Your task to perform on an android device: Open calendar and show me the third week of next month Image 0: 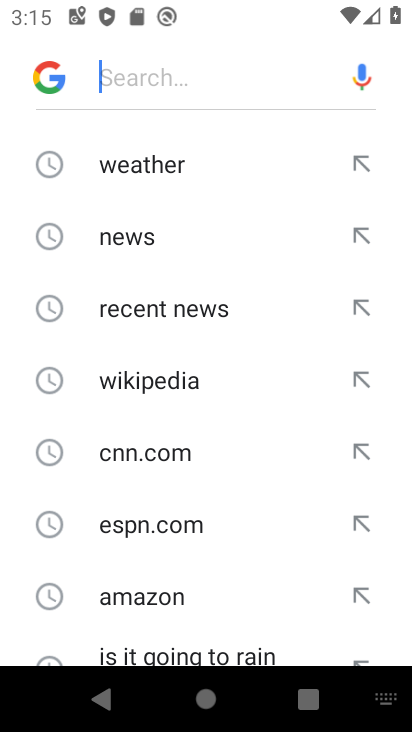
Step 0: press home button
Your task to perform on an android device: Open calendar and show me the third week of next month Image 1: 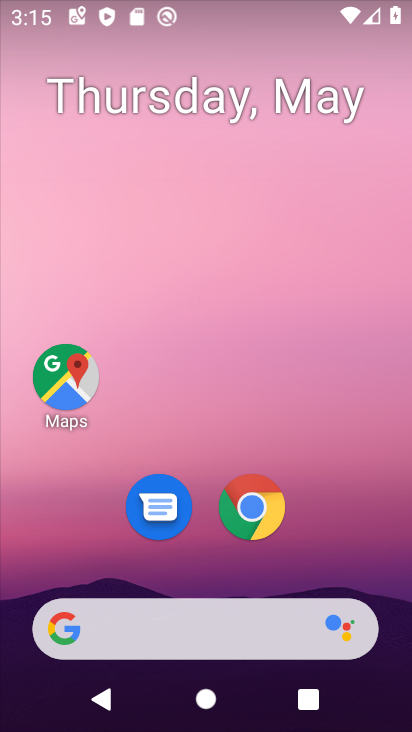
Step 1: drag from (312, 536) to (406, 82)
Your task to perform on an android device: Open calendar and show me the third week of next month Image 2: 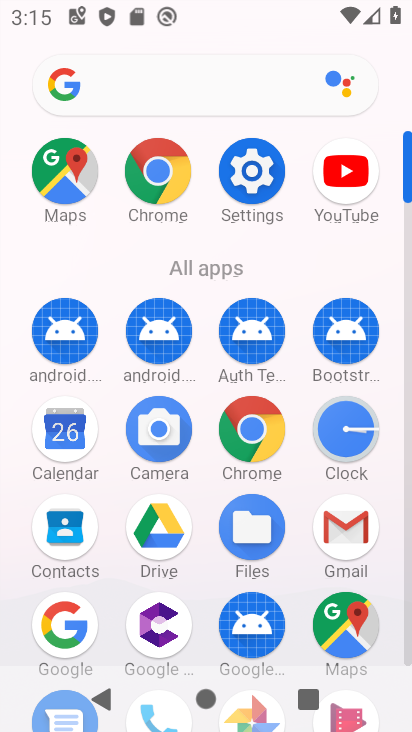
Step 2: click (75, 428)
Your task to perform on an android device: Open calendar and show me the third week of next month Image 3: 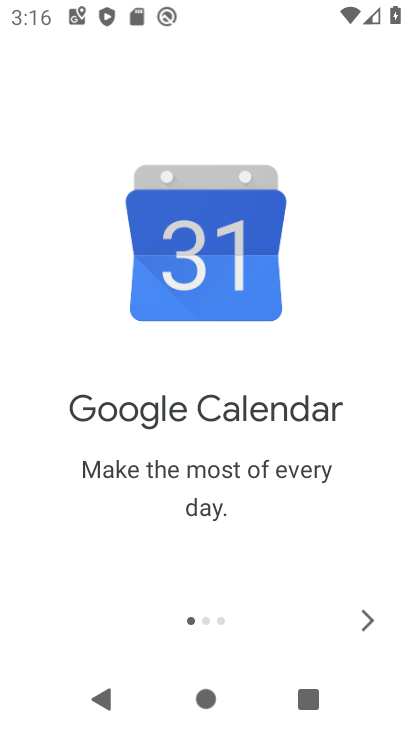
Step 3: click (369, 613)
Your task to perform on an android device: Open calendar and show me the third week of next month Image 4: 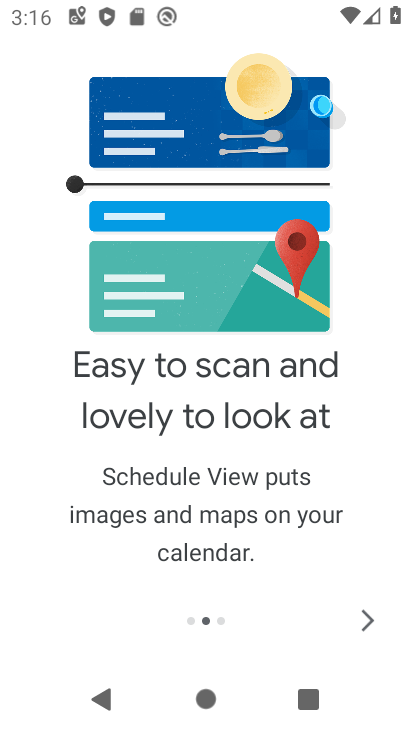
Step 4: click (369, 613)
Your task to perform on an android device: Open calendar and show me the third week of next month Image 5: 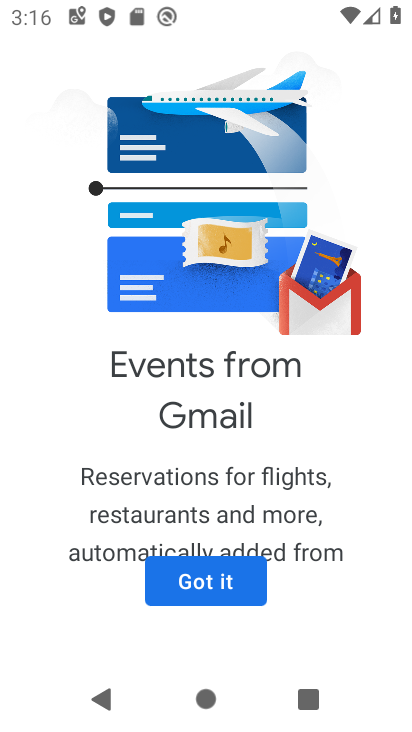
Step 5: click (229, 588)
Your task to perform on an android device: Open calendar and show me the third week of next month Image 6: 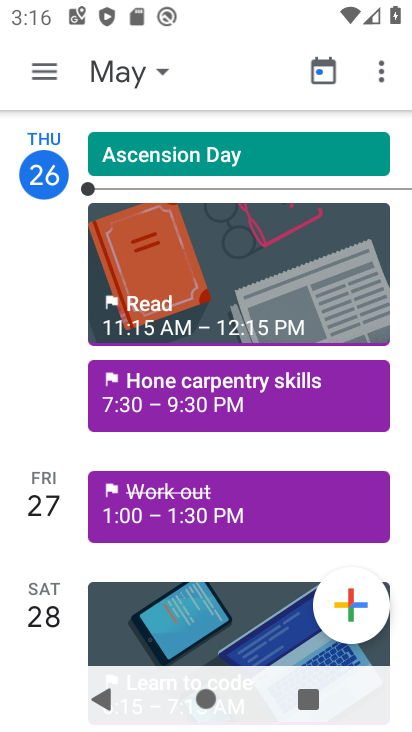
Step 6: click (148, 70)
Your task to perform on an android device: Open calendar and show me the third week of next month Image 7: 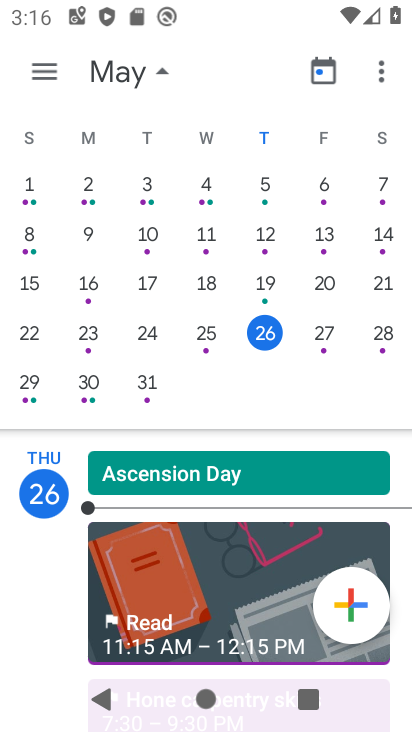
Step 7: drag from (340, 252) to (38, 241)
Your task to perform on an android device: Open calendar and show me the third week of next month Image 8: 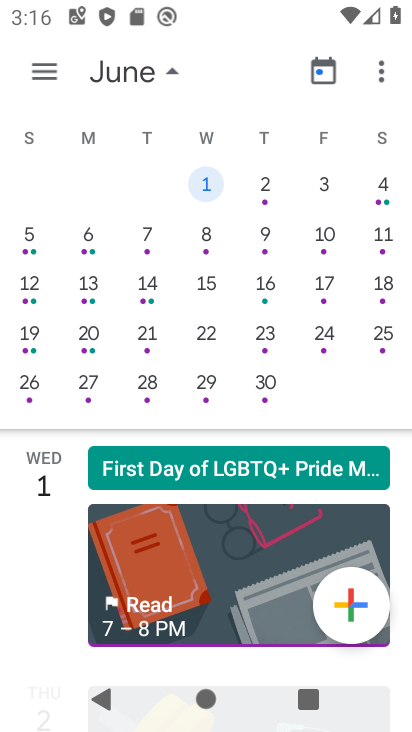
Step 8: click (319, 282)
Your task to perform on an android device: Open calendar and show me the third week of next month Image 9: 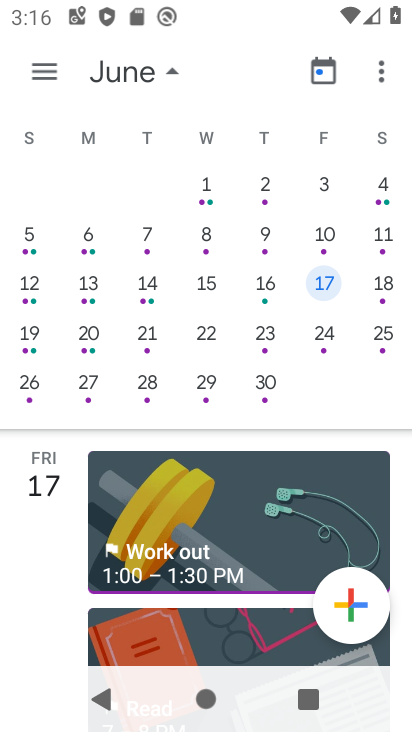
Step 9: task complete